Your task to perform on an android device: turn off picture-in-picture Image 0: 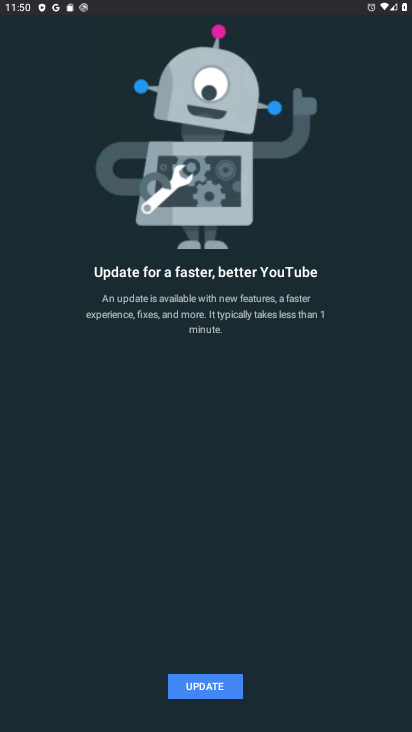
Step 0: press home button
Your task to perform on an android device: turn off picture-in-picture Image 1: 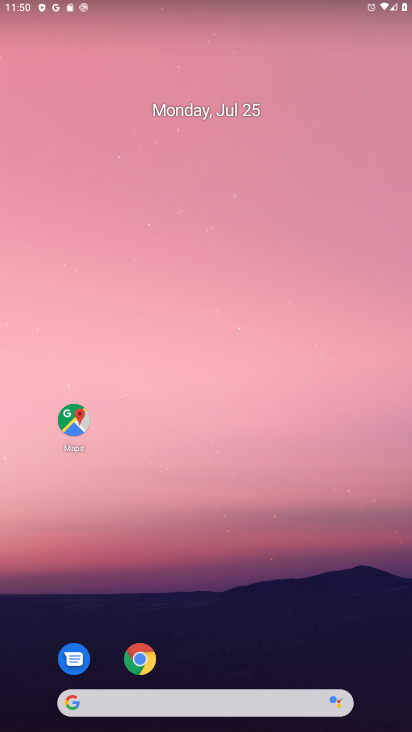
Step 1: drag from (249, 622) to (168, 115)
Your task to perform on an android device: turn off picture-in-picture Image 2: 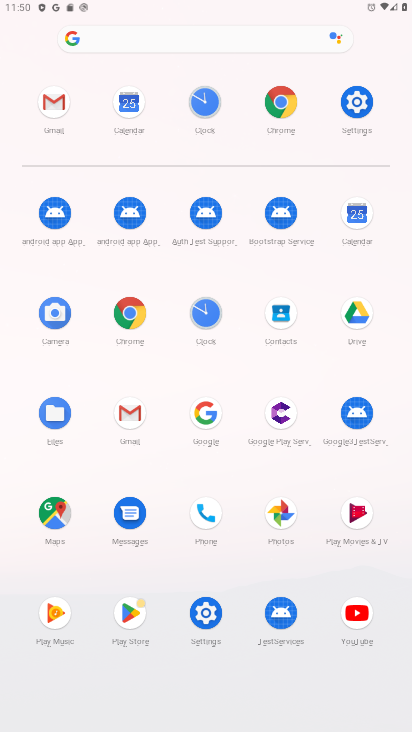
Step 2: click (356, 103)
Your task to perform on an android device: turn off picture-in-picture Image 3: 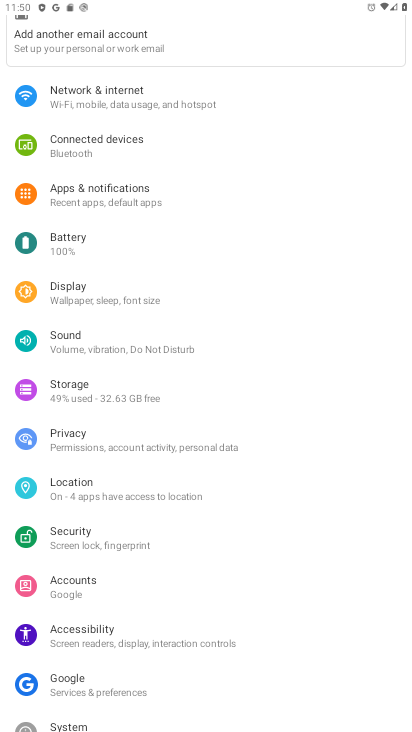
Step 3: click (91, 188)
Your task to perform on an android device: turn off picture-in-picture Image 4: 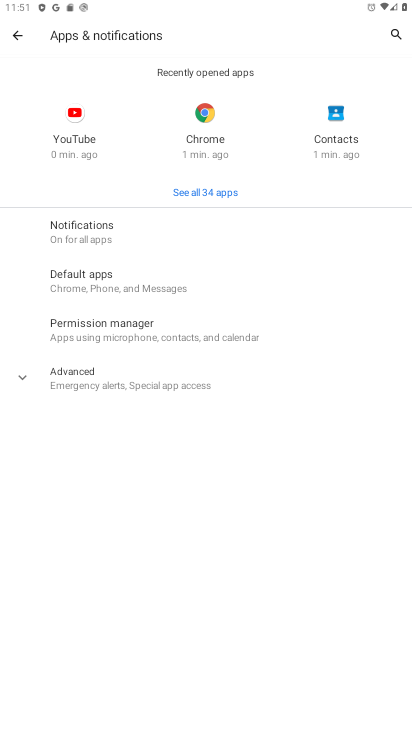
Step 4: click (28, 376)
Your task to perform on an android device: turn off picture-in-picture Image 5: 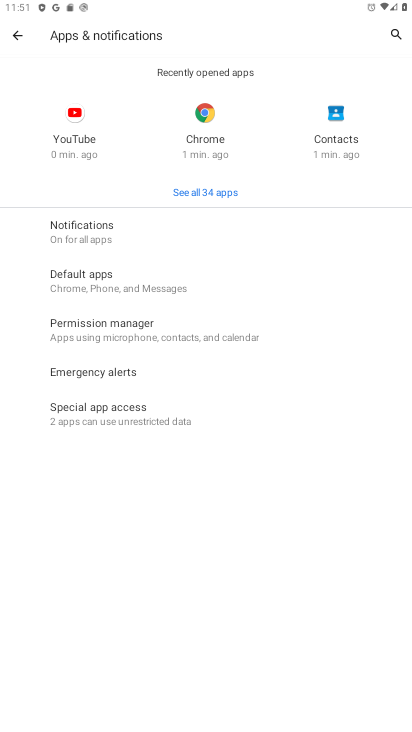
Step 5: click (90, 414)
Your task to perform on an android device: turn off picture-in-picture Image 6: 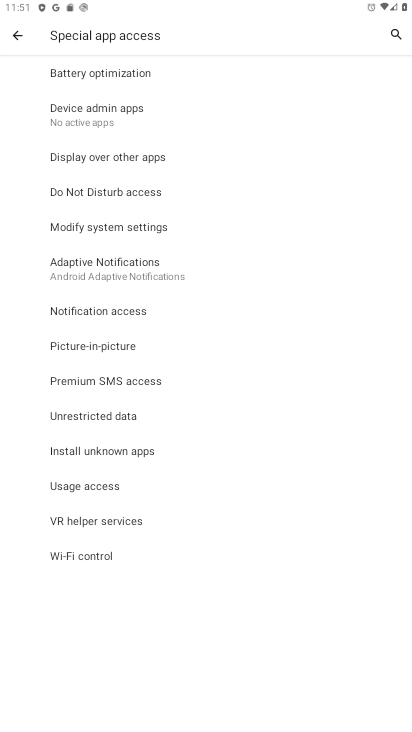
Step 6: click (104, 344)
Your task to perform on an android device: turn off picture-in-picture Image 7: 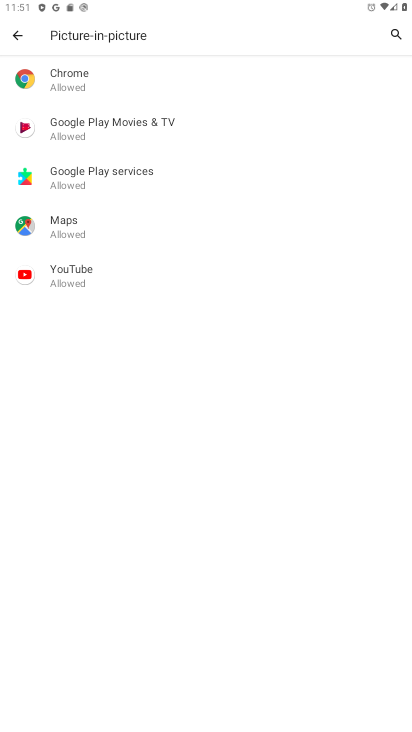
Step 7: click (59, 73)
Your task to perform on an android device: turn off picture-in-picture Image 8: 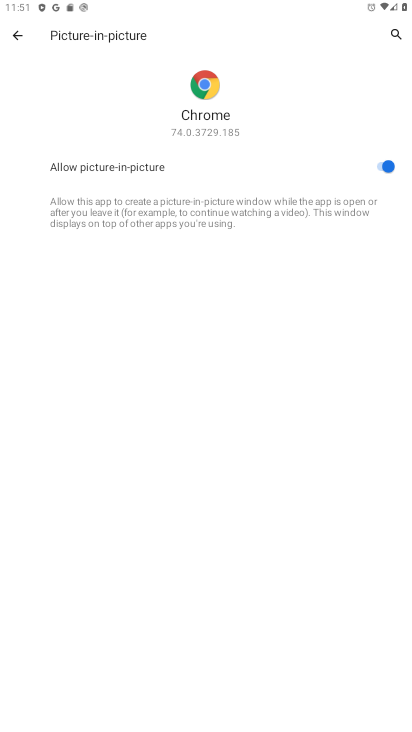
Step 8: click (385, 166)
Your task to perform on an android device: turn off picture-in-picture Image 9: 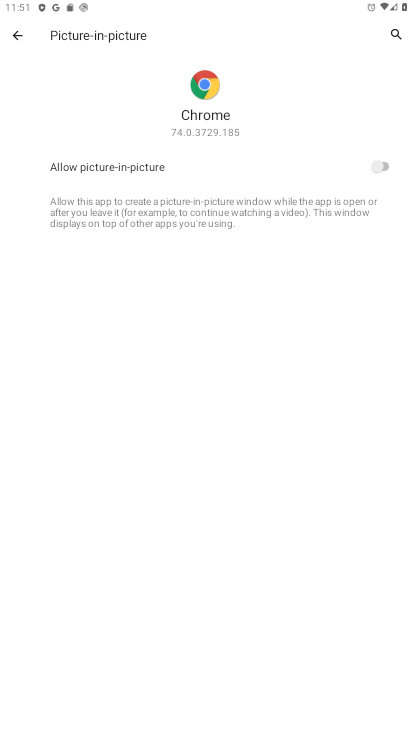
Step 9: click (10, 32)
Your task to perform on an android device: turn off picture-in-picture Image 10: 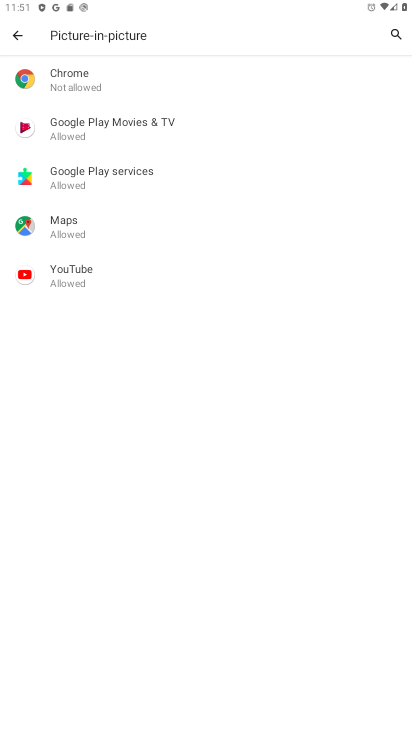
Step 10: click (99, 126)
Your task to perform on an android device: turn off picture-in-picture Image 11: 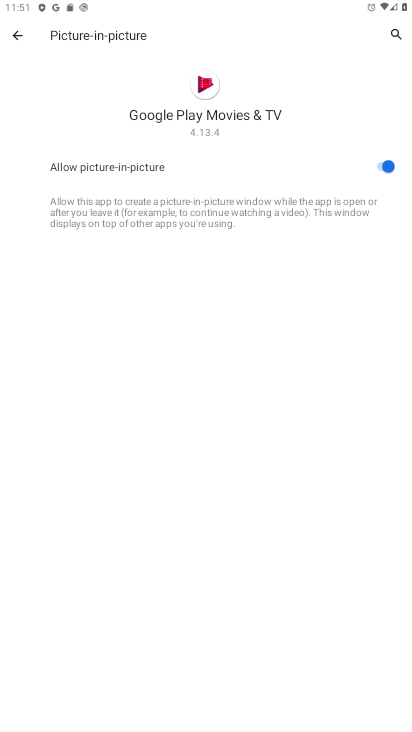
Step 11: click (390, 171)
Your task to perform on an android device: turn off picture-in-picture Image 12: 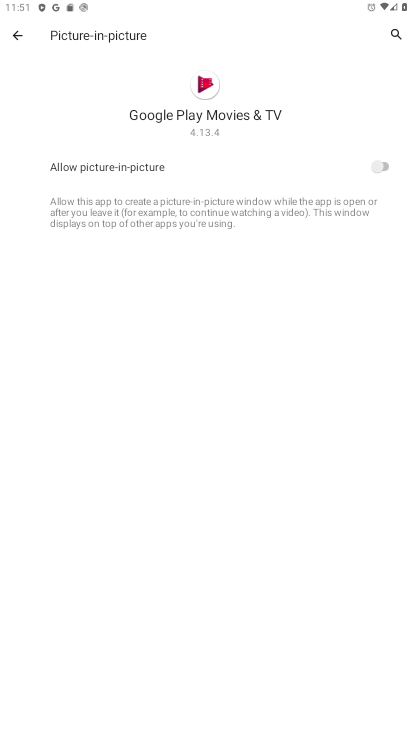
Step 12: click (10, 34)
Your task to perform on an android device: turn off picture-in-picture Image 13: 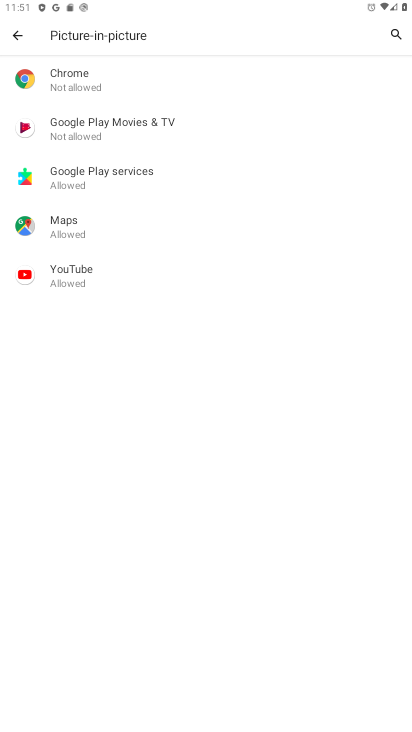
Step 13: click (90, 175)
Your task to perform on an android device: turn off picture-in-picture Image 14: 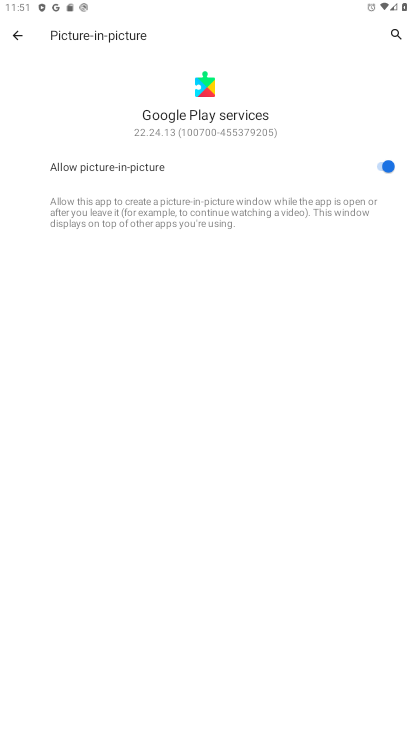
Step 14: click (384, 161)
Your task to perform on an android device: turn off picture-in-picture Image 15: 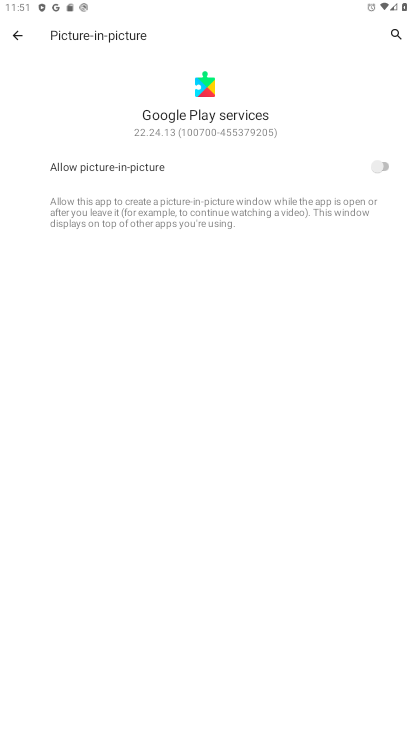
Step 15: click (13, 36)
Your task to perform on an android device: turn off picture-in-picture Image 16: 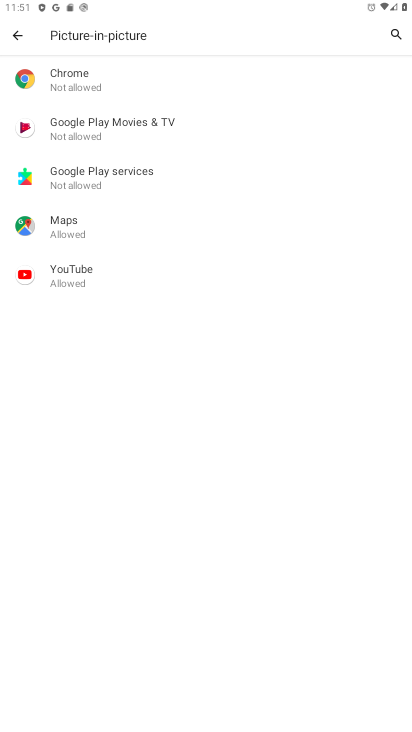
Step 16: click (67, 228)
Your task to perform on an android device: turn off picture-in-picture Image 17: 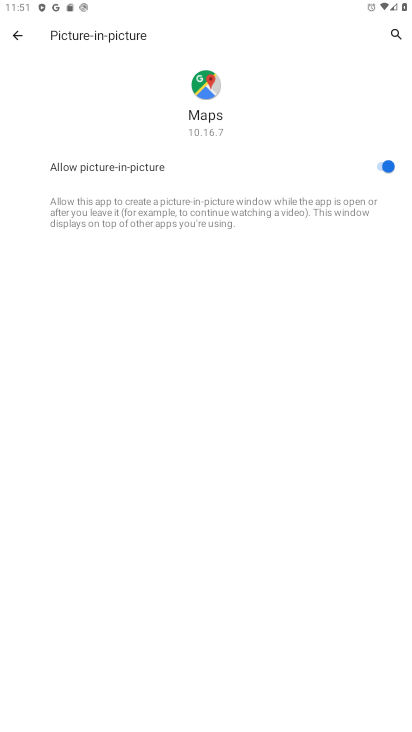
Step 17: click (389, 167)
Your task to perform on an android device: turn off picture-in-picture Image 18: 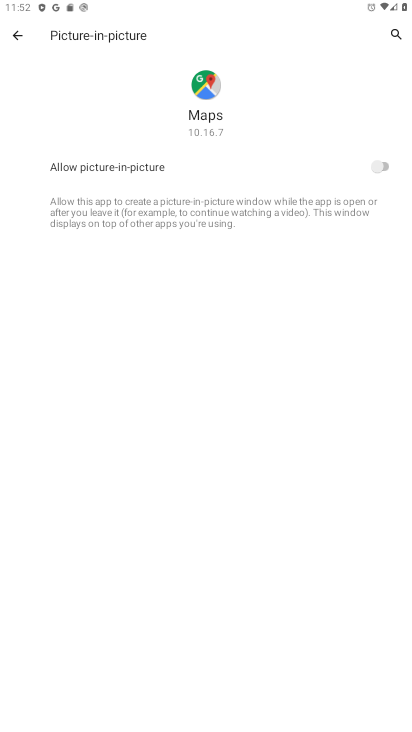
Step 18: click (14, 36)
Your task to perform on an android device: turn off picture-in-picture Image 19: 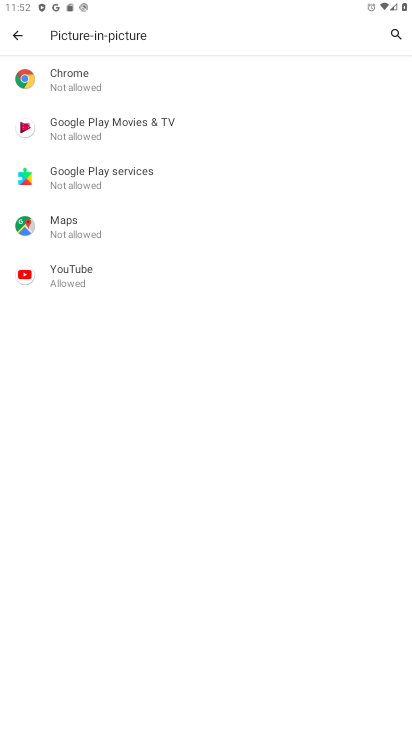
Step 19: click (81, 274)
Your task to perform on an android device: turn off picture-in-picture Image 20: 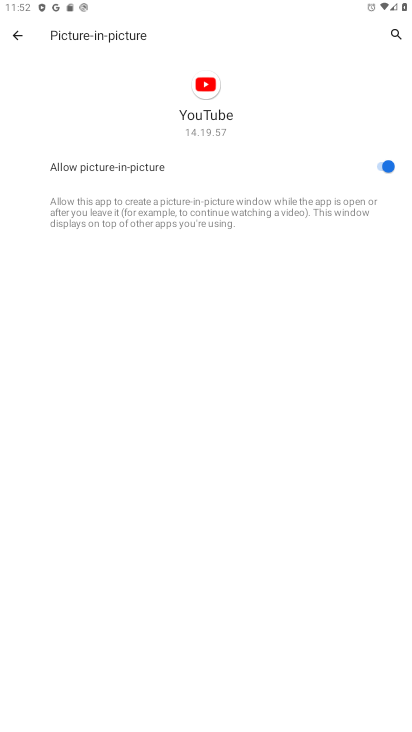
Step 20: click (383, 163)
Your task to perform on an android device: turn off picture-in-picture Image 21: 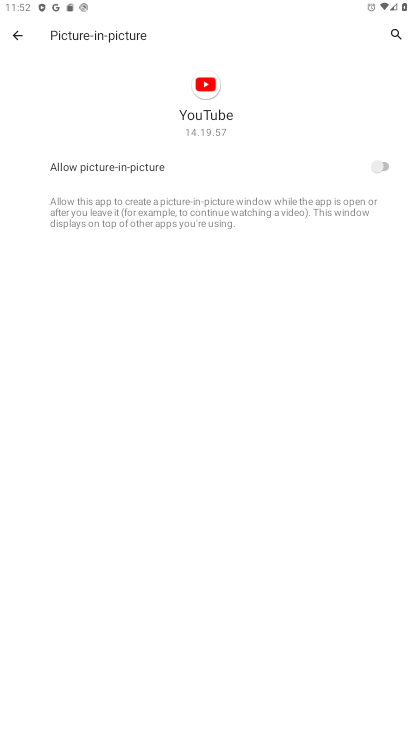
Step 21: click (9, 31)
Your task to perform on an android device: turn off picture-in-picture Image 22: 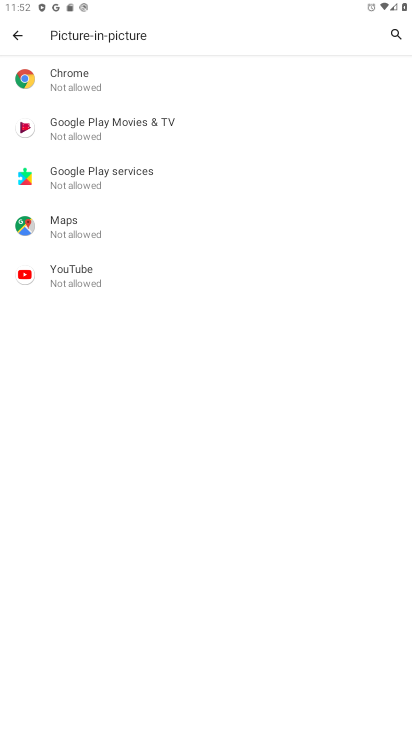
Step 22: task complete